Your task to perform on an android device: Do I have any events today? Image 0: 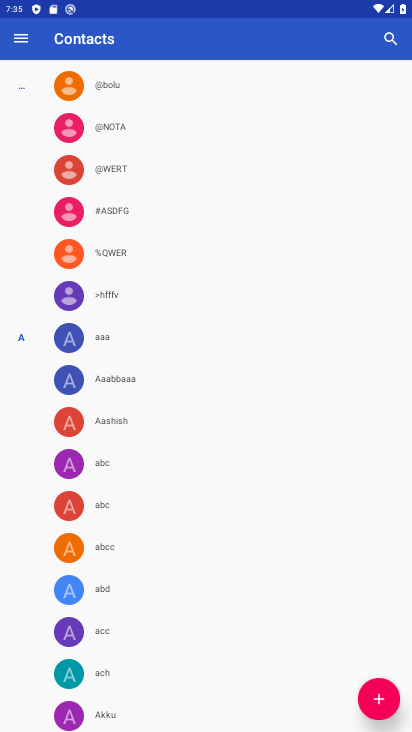
Step 0: drag from (213, 535) to (242, 108)
Your task to perform on an android device: Do I have any events today? Image 1: 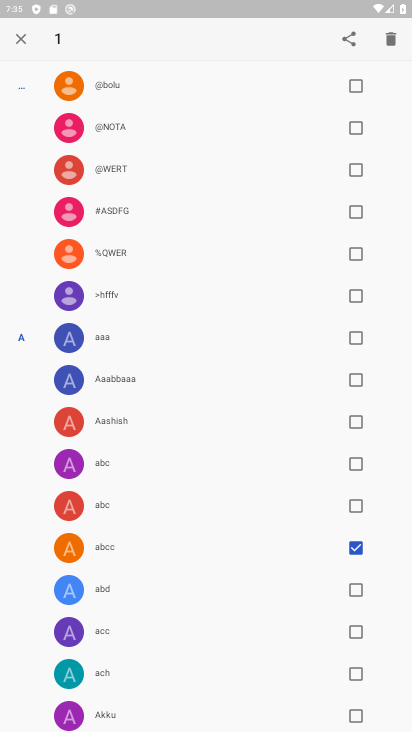
Step 1: press home button
Your task to perform on an android device: Do I have any events today? Image 2: 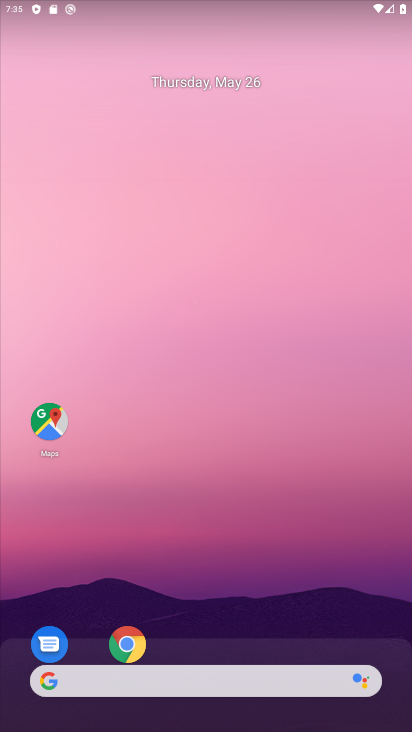
Step 2: drag from (168, 635) to (82, 0)
Your task to perform on an android device: Do I have any events today? Image 3: 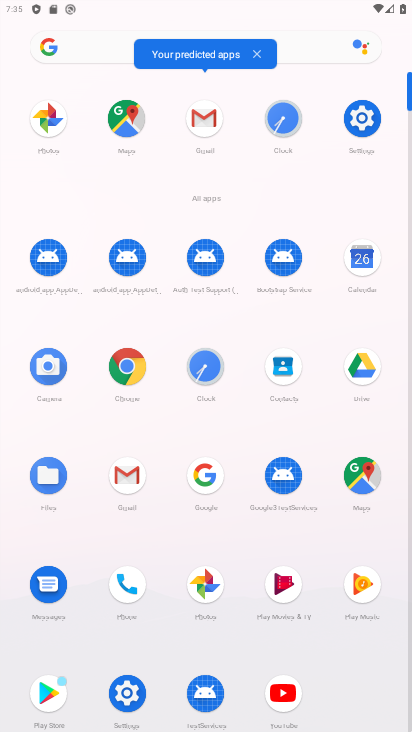
Step 3: click (363, 259)
Your task to perform on an android device: Do I have any events today? Image 4: 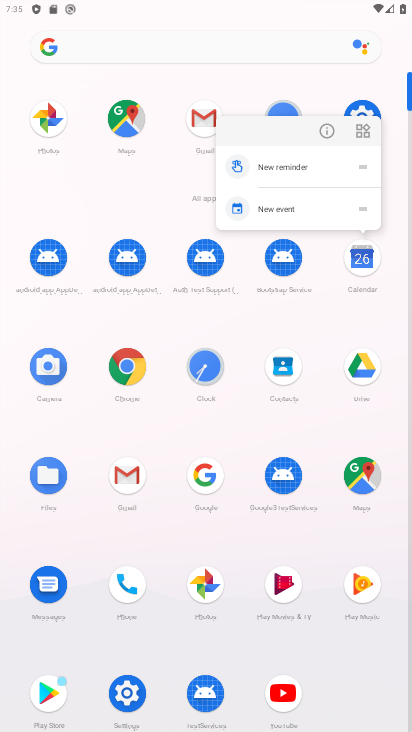
Step 4: click (317, 124)
Your task to perform on an android device: Do I have any events today? Image 5: 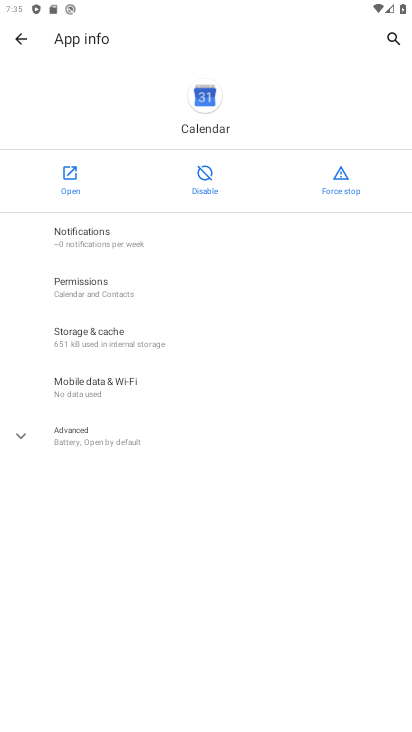
Step 5: click (72, 157)
Your task to perform on an android device: Do I have any events today? Image 6: 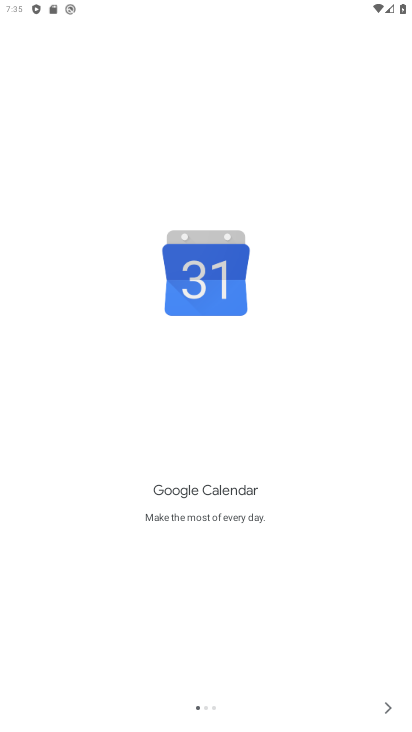
Step 6: click (388, 699)
Your task to perform on an android device: Do I have any events today? Image 7: 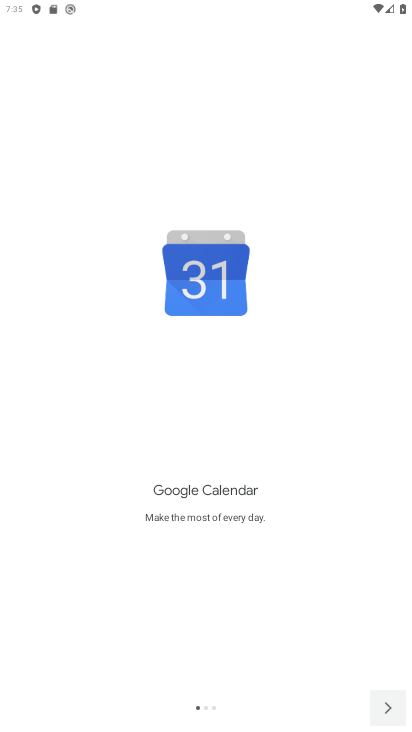
Step 7: click (388, 699)
Your task to perform on an android device: Do I have any events today? Image 8: 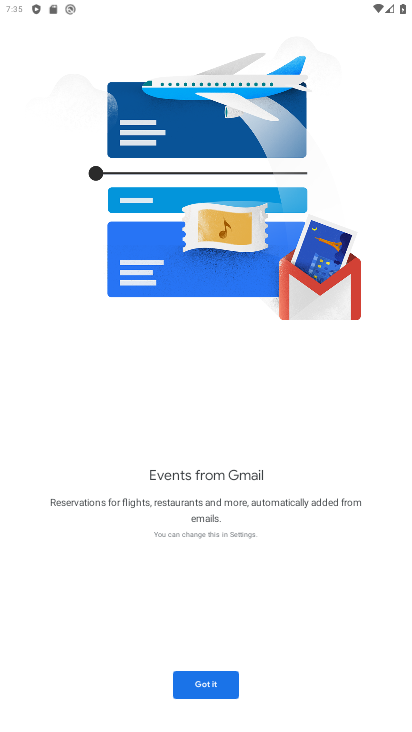
Step 8: click (387, 694)
Your task to perform on an android device: Do I have any events today? Image 9: 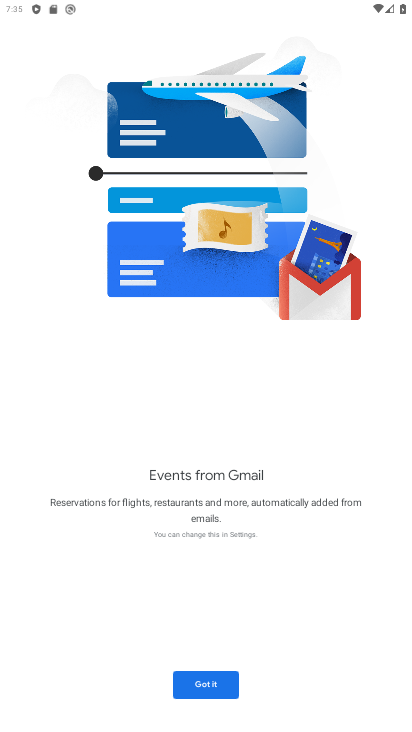
Step 9: click (184, 696)
Your task to perform on an android device: Do I have any events today? Image 10: 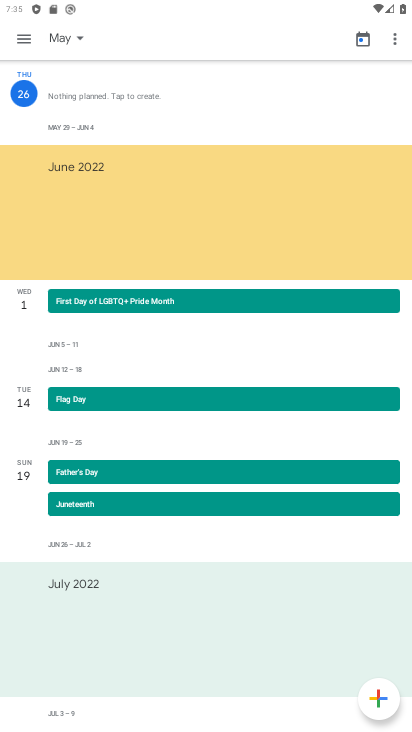
Step 10: drag from (209, 677) to (254, 413)
Your task to perform on an android device: Do I have any events today? Image 11: 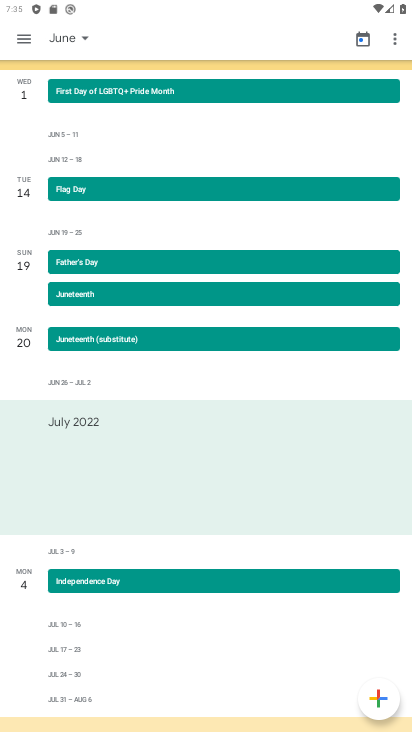
Step 11: drag from (297, 361) to (337, 683)
Your task to perform on an android device: Do I have any events today? Image 12: 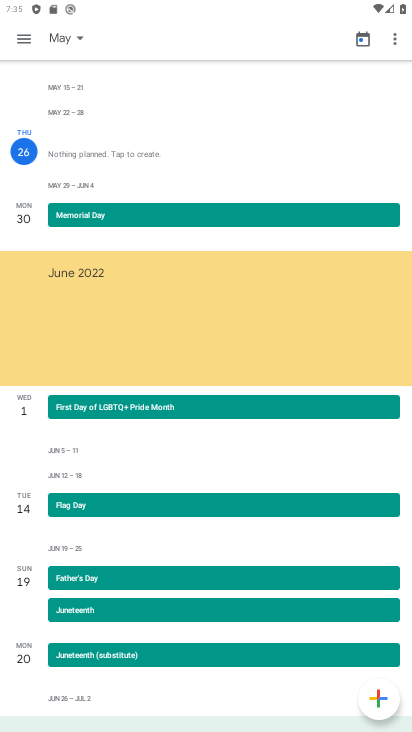
Step 12: click (55, 47)
Your task to perform on an android device: Do I have any events today? Image 13: 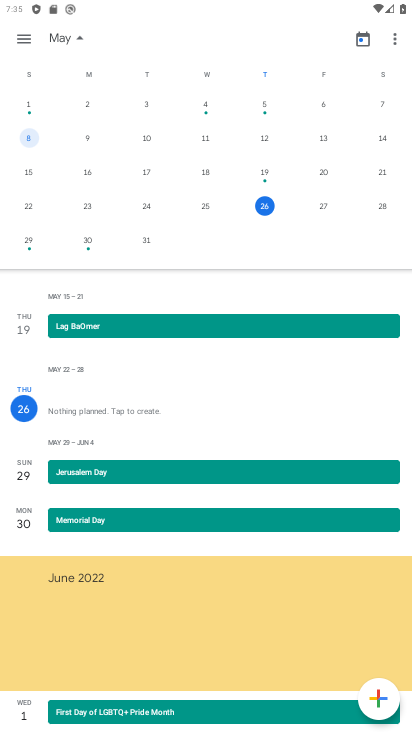
Step 13: click (269, 214)
Your task to perform on an android device: Do I have any events today? Image 14: 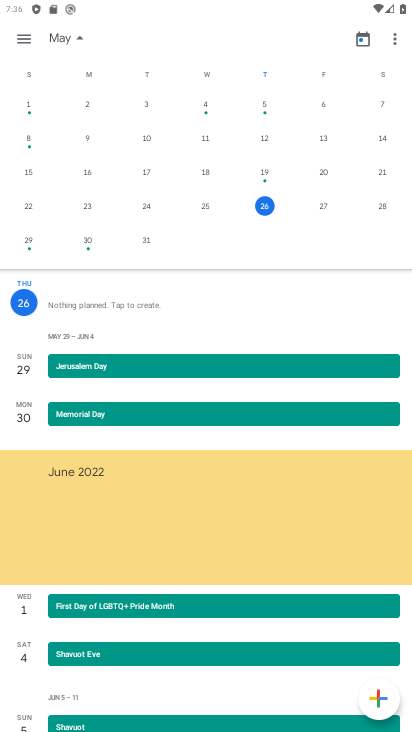
Step 14: task complete